Your task to perform on an android device: open app "Spotify" (install if not already installed) and enter user name: "infallible@icloud.com" and password: "implored" Image 0: 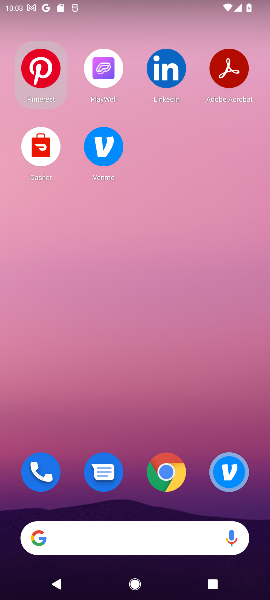
Step 0: drag from (219, 432) to (184, 201)
Your task to perform on an android device: open app "Spotify" (install if not already installed) and enter user name: "infallible@icloud.com" and password: "implored" Image 1: 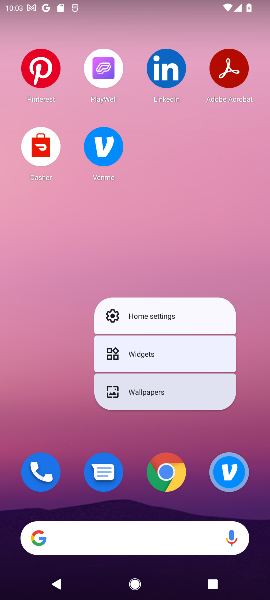
Step 1: click (163, 214)
Your task to perform on an android device: open app "Spotify" (install if not already installed) and enter user name: "infallible@icloud.com" and password: "implored" Image 2: 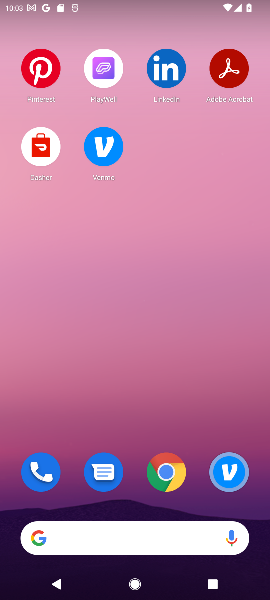
Step 2: drag from (240, 386) to (192, 88)
Your task to perform on an android device: open app "Spotify" (install if not already installed) and enter user name: "infallible@icloud.com" and password: "implored" Image 3: 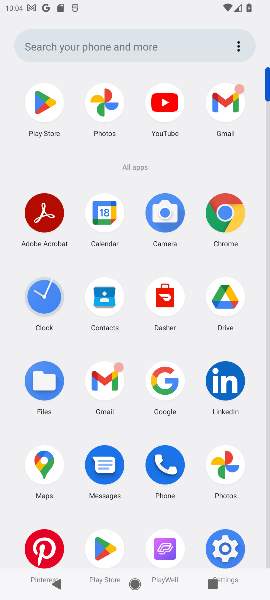
Step 3: click (110, 539)
Your task to perform on an android device: open app "Spotify" (install if not already installed) and enter user name: "infallible@icloud.com" and password: "implored" Image 4: 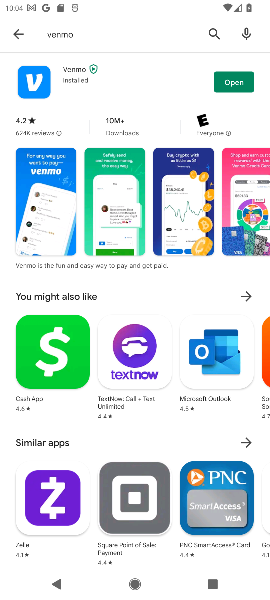
Step 4: click (213, 37)
Your task to perform on an android device: open app "Spotify" (install if not already installed) and enter user name: "infallible@icloud.com" and password: "implored" Image 5: 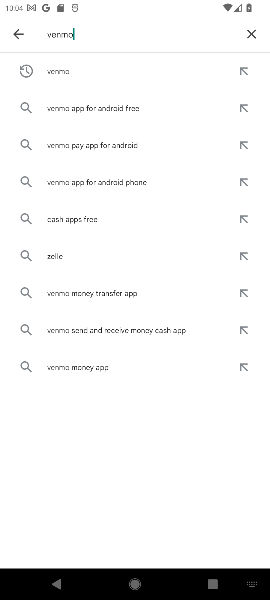
Step 5: click (253, 31)
Your task to perform on an android device: open app "Spotify" (install if not already installed) and enter user name: "infallible@icloud.com" and password: "implored" Image 6: 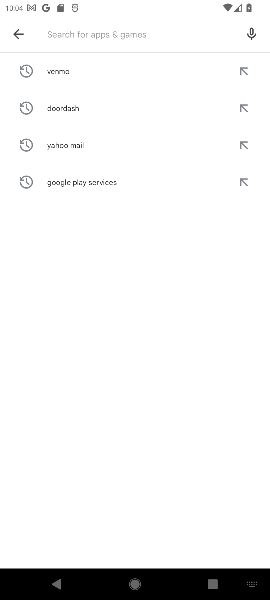
Step 6: type "spotify"
Your task to perform on an android device: open app "Spotify" (install if not already installed) and enter user name: "infallible@icloud.com" and password: "implored" Image 7: 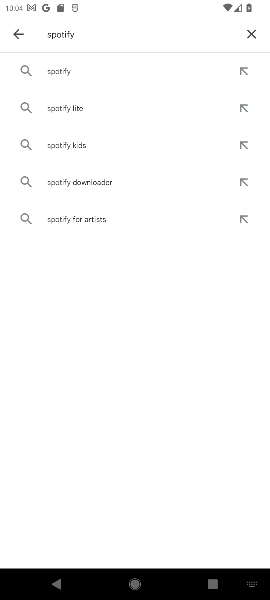
Step 7: click (179, 69)
Your task to perform on an android device: open app "Spotify" (install if not already installed) and enter user name: "infallible@icloud.com" and password: "implored" Image 8: 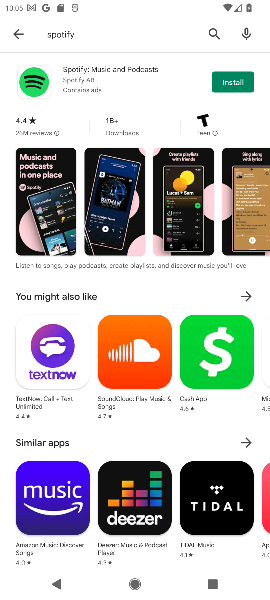
Step 8: click (230, 80)
Your task to perform on an android device: open app "Spotify" (install if not already installed) and enter user name: "infallible@icloud.com" and password: "implored" Image 9: 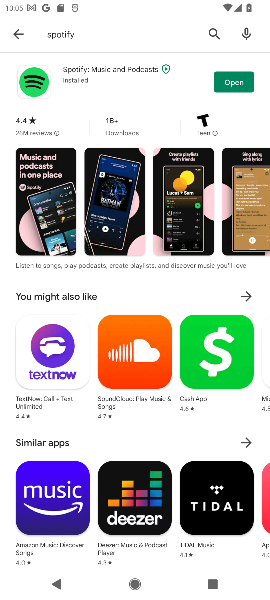
Step 9: click (231, 79)
Your task to perform on an android device: open app "Spotify" (install if not already installed) and enter user name: "infallible@icloud.com" and password: "implored" Image 10: 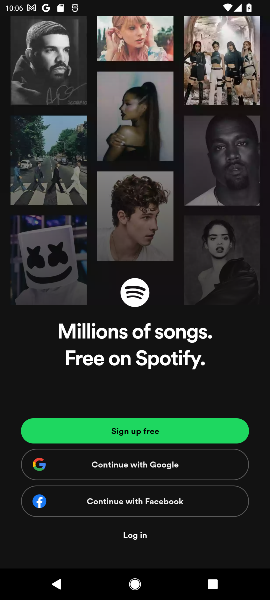
Step 10: click (143, 540)
Your task to perform on an android device: open app "Spotify" (install if not already installed) and enter user name: "infallible@icloud.com" and password: "implored" Image 11: 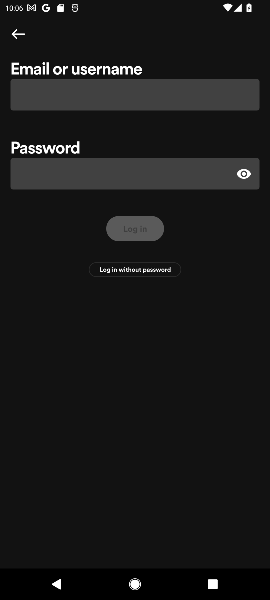
Step 11: click (142, 87)
Your task to perform on an android device: open app "Spotify" (install if not already installed) and enter user name: "infallible@icloud.com" and password: "implored" Image 12: 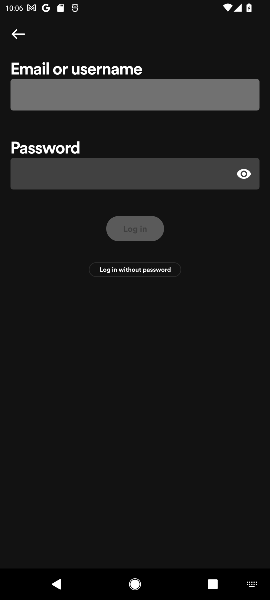
Step 12: type "infallible@icloud.com"
Your task to perform on an android device: open app "Spotify" (install if not already installed) and enter user name: "infallible@icloud.com" and password: "implored" Image 13: 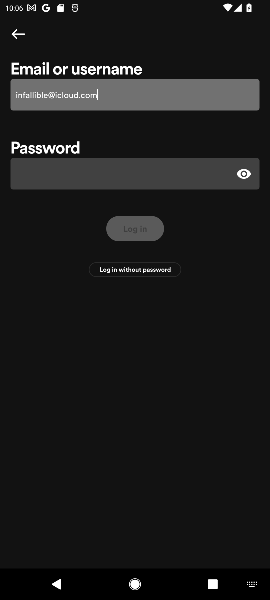
Step 13: click (152, 172)
Your task to perform on an android device: open app "Spotify" (install if not already installed) and enter user name: "infallible@icloud.com" and password: "implored" Image 14: 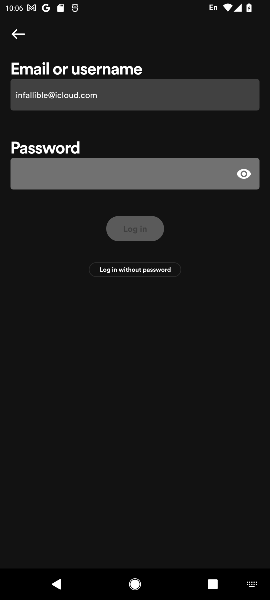
Step 14: type "implored"
Your task to perform on an android device: open app "Spotify" (install if not already installed) and enter user name: "infallible@icloud.com" and password: "implored" Image 15: 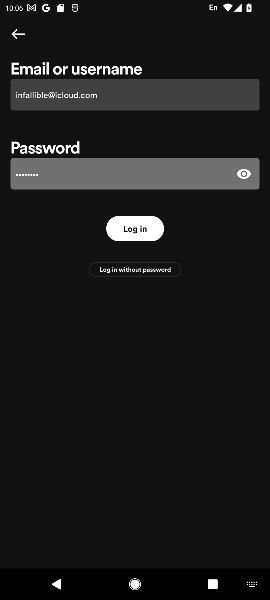
Step 15: click (138, 224)
Your task to perform on an android device: open app "Spotify" (install if not already installed) and enter user name: "infallible@icloud.com" and password: "implored" Image 16: 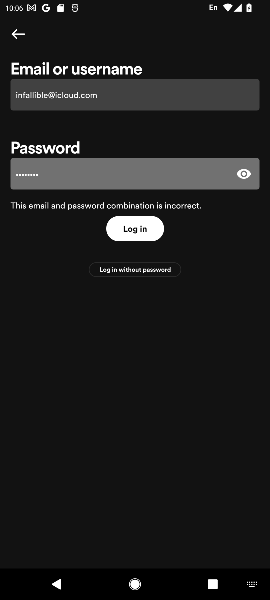
Step 16: task complete